Your task to perform on an android device: Go to Wikipedia Image 0: 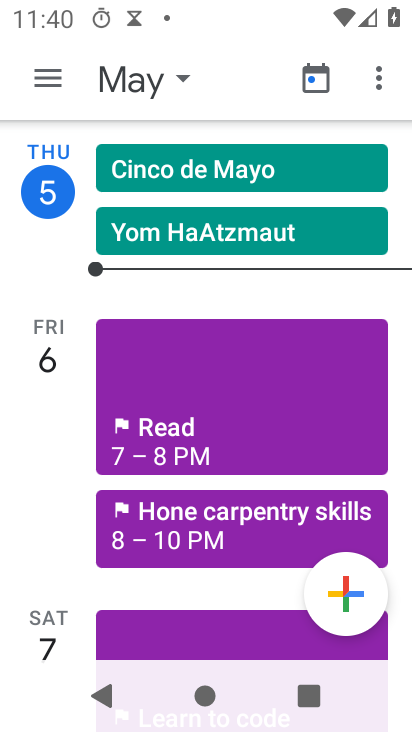
Step 0: drag from (373, 602) to (171, 127)
Your task to perform on an android device: Go to Wikipedia Image 1: 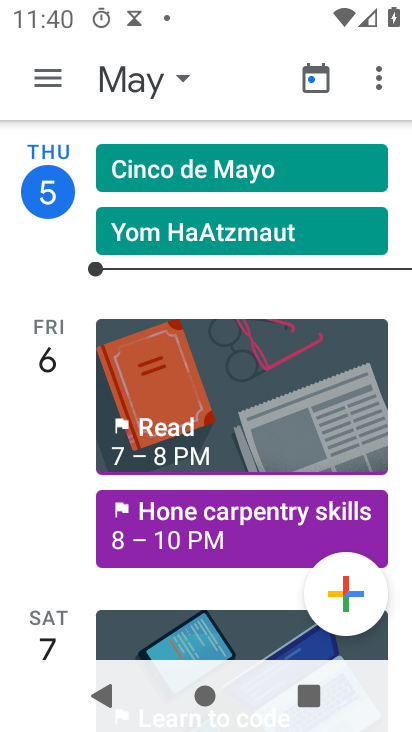
Step 1: press home button
Your task to perform on an android device: Go to Wikipedia Image 2: 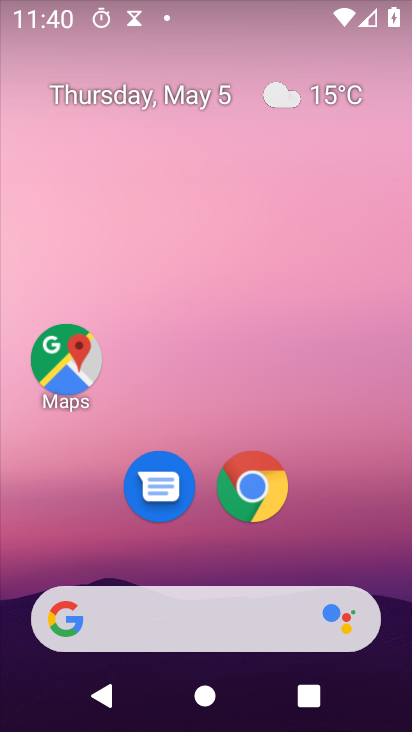
Step 2: drag from (385, 566) to (111, 74)
Your task to perform on an android device: Go to Wikipedia Image 3: 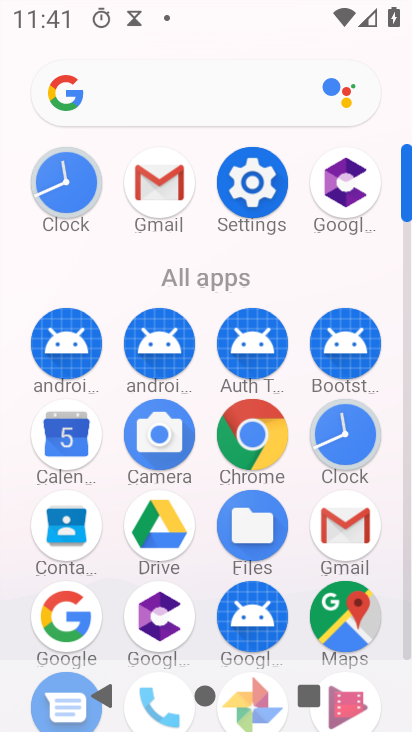
Step 3: press home button
Your task to perform on an android device: Go to Wikipedia Image 4: 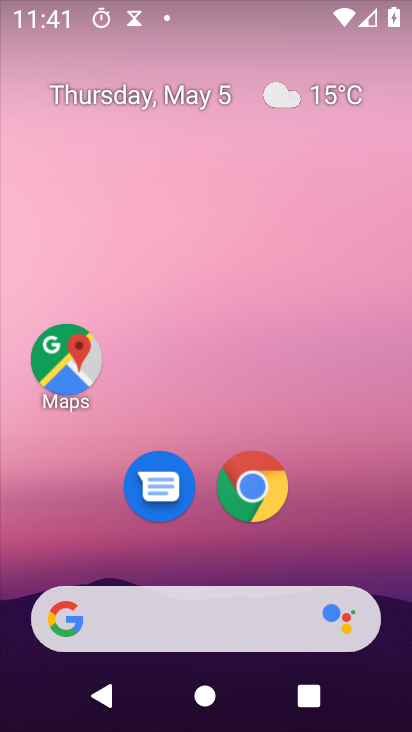
Step 4: drag from (365, 555) to (101, 68)
Your task to perform on an android device: Go to Wikipedia Image 5: 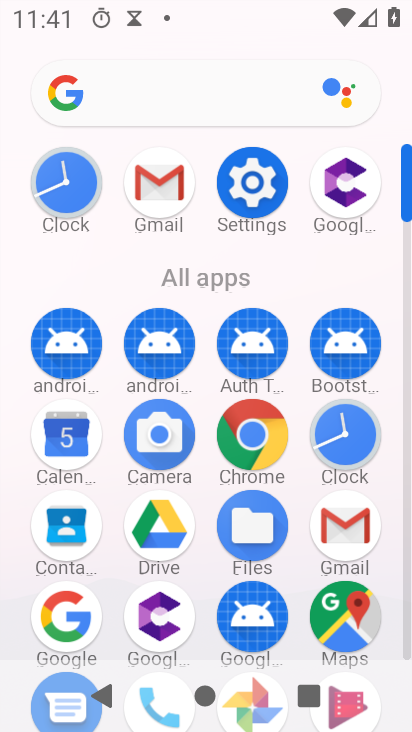
Step 5: click (241, 439)
Your task to perform on an android device: Go to Wikipedia Image 6: 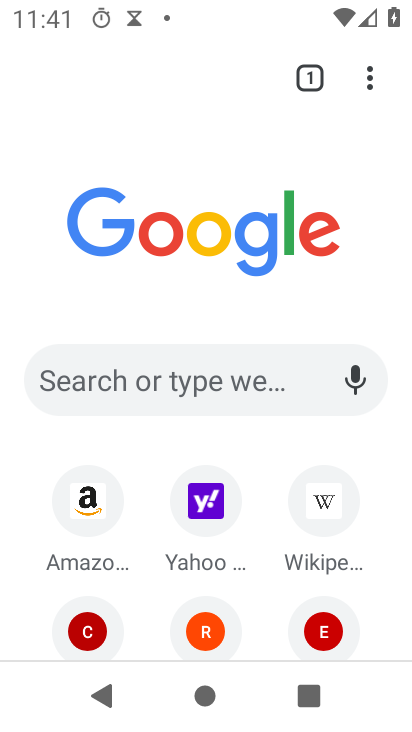
Step 6: click (362, 77)
Your task to perform on an android device: Go to Wikipedia Image 7: 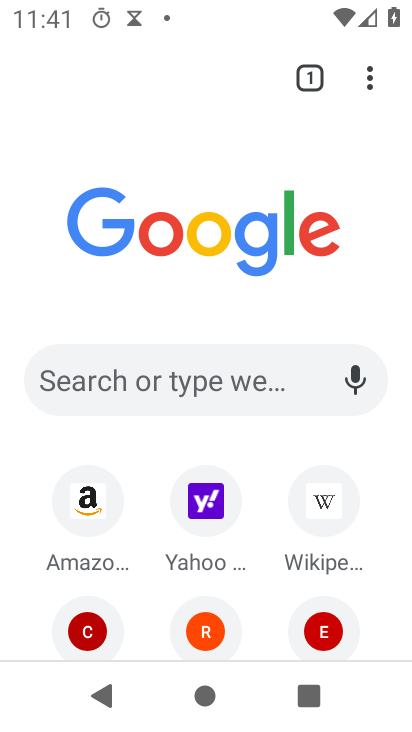
Step 7: click (364, 74)
Your task to perform on an android device: Go to Wikipedia Image 8: 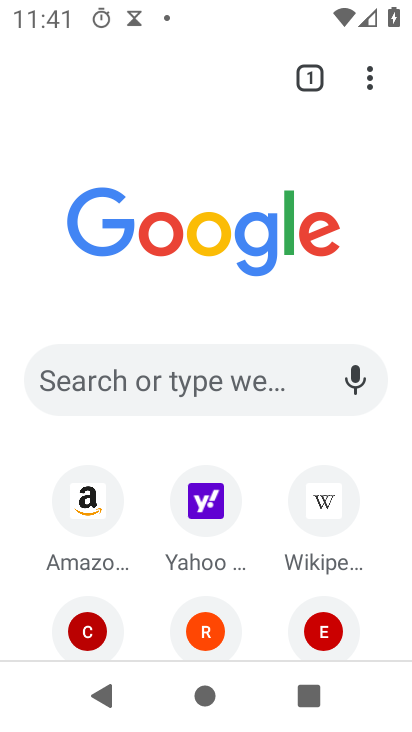
Step 8: click (357, 91)
Your task to perform on an android device: Go to Wikipedia Image 9: 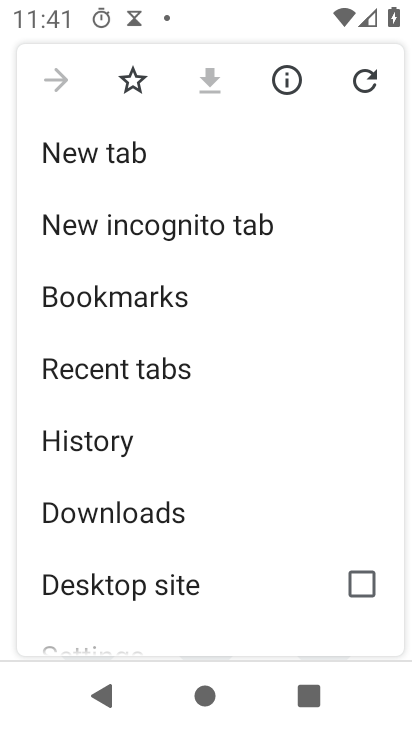
Step 9: click (363, 80)
Your task to perform on an android device: Go to Wikipedia Image 10: 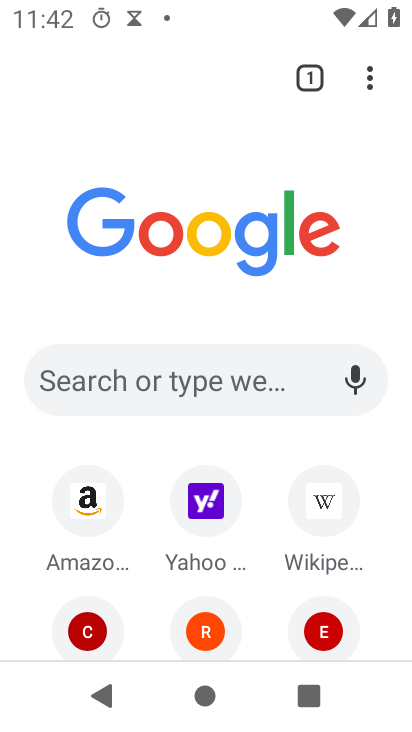
Step 10: click (339, 523)
Your task to perform on an android device: Go to Wikipedia Image 11: 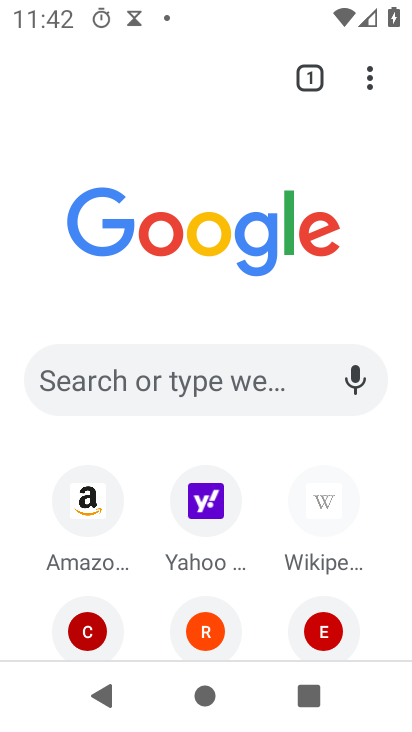
Step 11: click (335, 517)
Your task to perform on an android device: Go to Wikipedia Image 12: 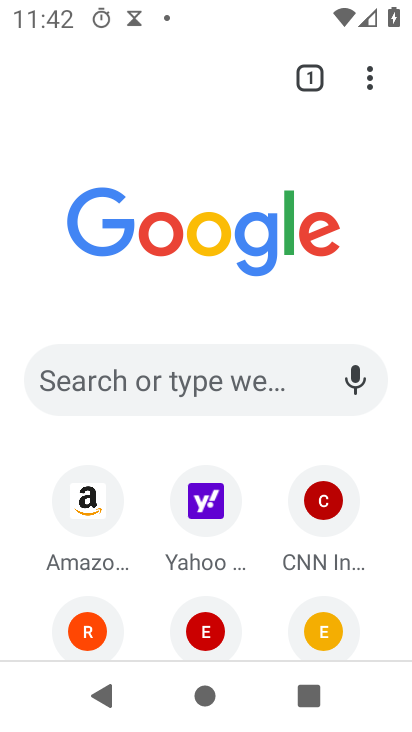
Step 12: task complete